Your task to perform on an android device: change text size in settings app Image 0: 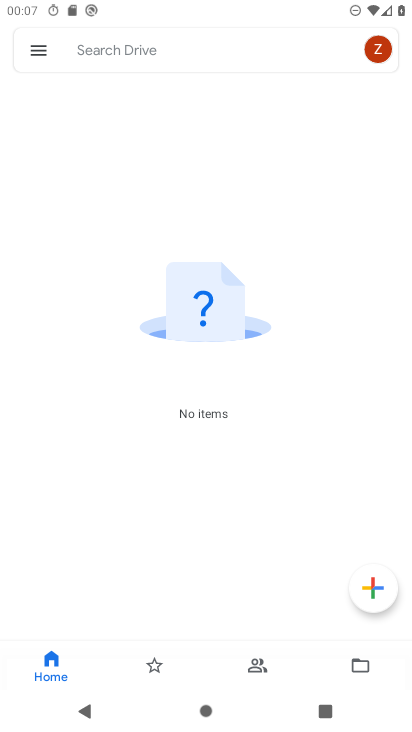
Step 0: press home button
Your task to perform on an android device: change text size in settings app Image 1: 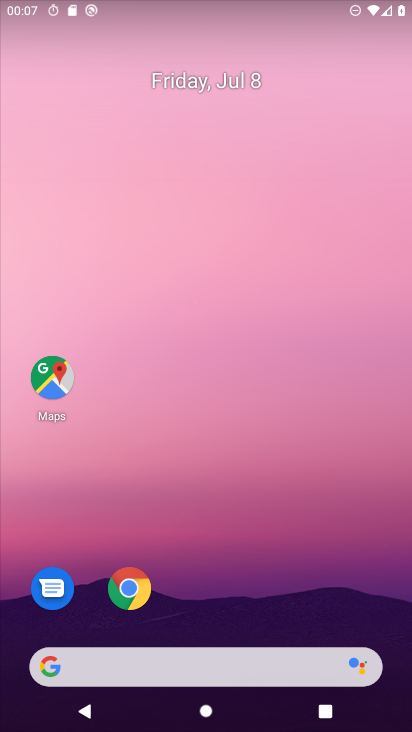
Step 1: drag from (298, 619) to (295, 121)
Your task to perform on an android device: change text size in settings app Image 2: 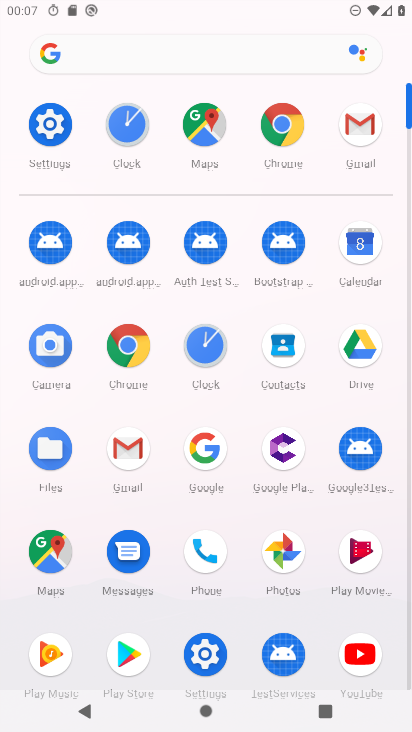
Step 2: click (45, 126)
Your task to perform on an android device: change text size in settings app Image 3: 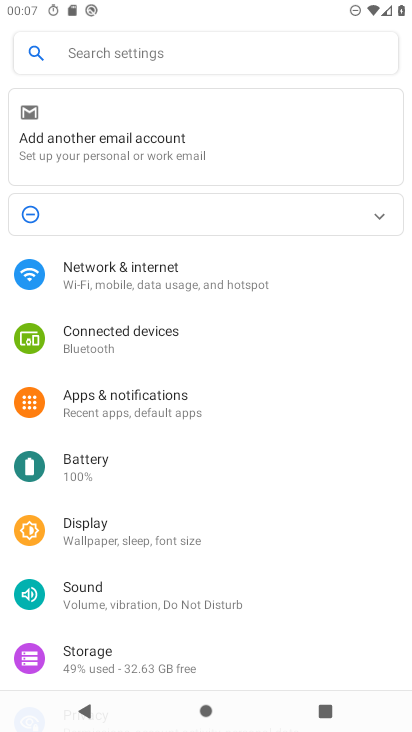
Step 3: click (162, 539)
Your task to perform on an android device: change text size in settings app Image 4: 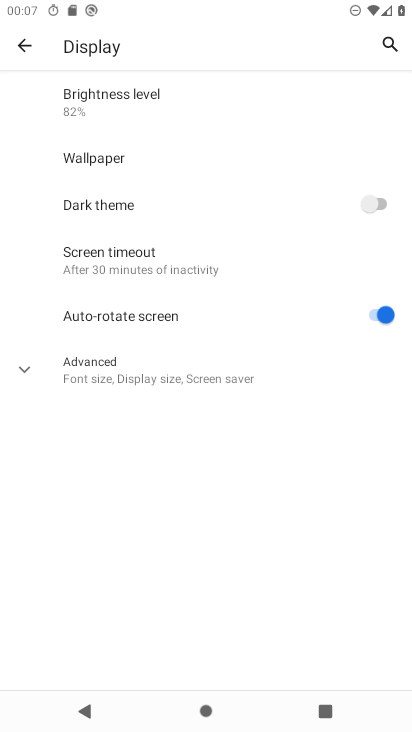
Step 4: click (134, 378)
Your task to perform on an android device: change text size in settings app Image 5: 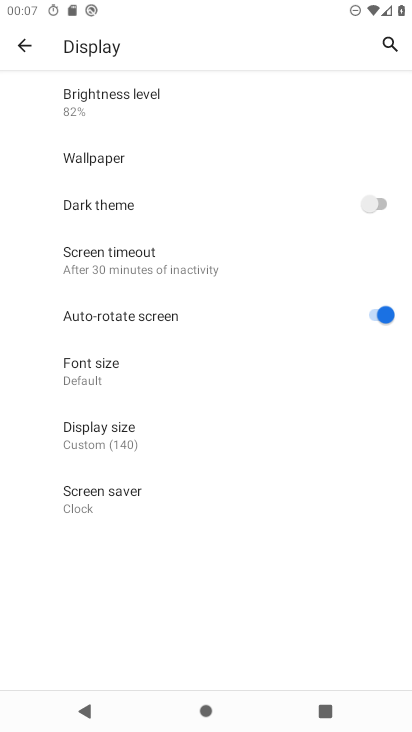
Step 5: click (87, 373)
Your task to perform on an android device: change text size in settings app Image 6: 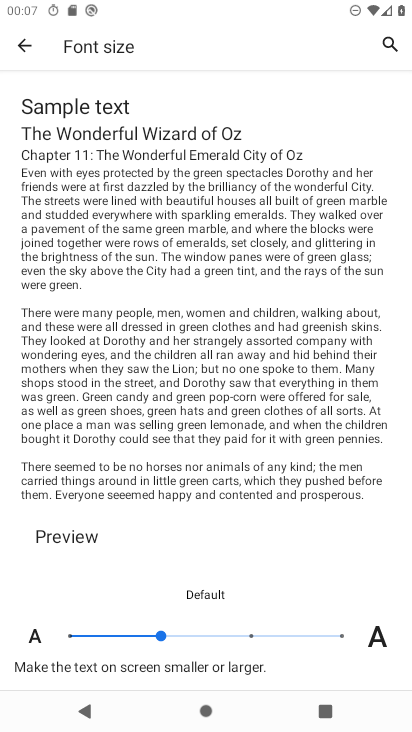
Step 6: click (97, 634)
Your task to perform on an android device: change text size in settings app Image 7: 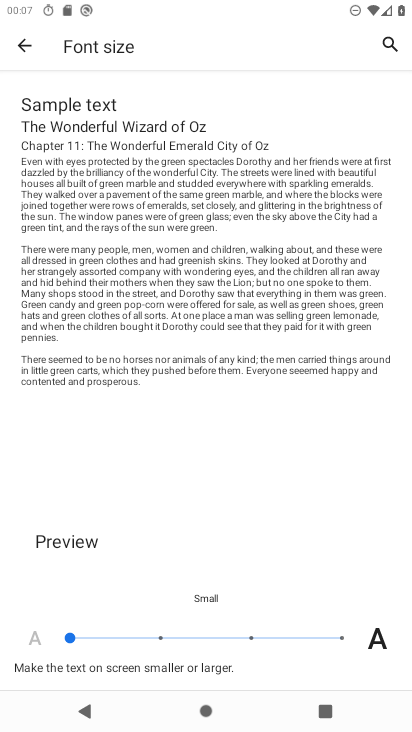
Step 7: task complete